Your task to perform on an android device: Go to Yahoo.com Image 0: 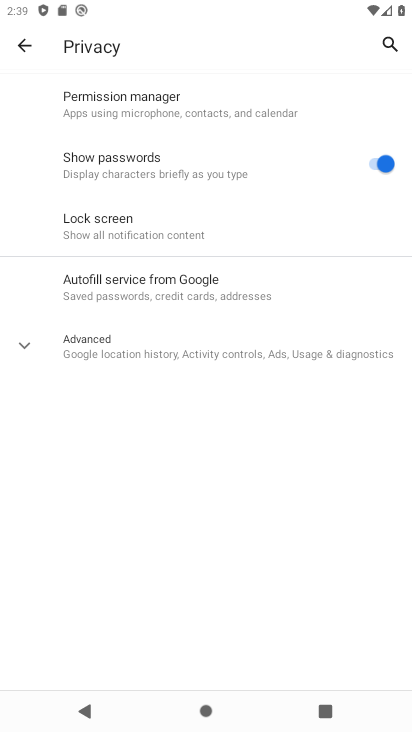
Step 0: press home button
Your task to perform on an android device: Go to Yahoo.com Image 1: 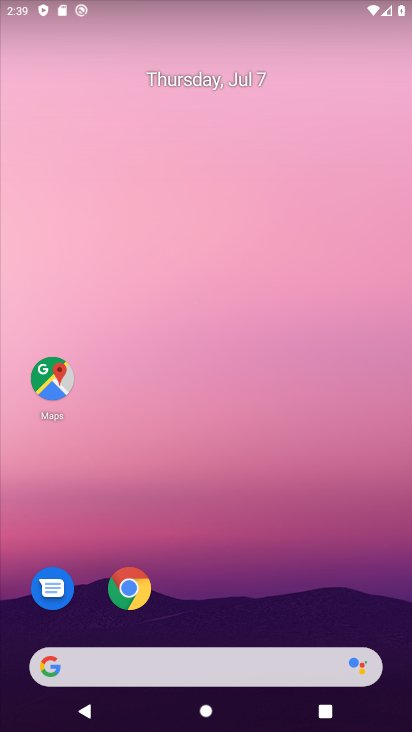
Step 1: click (131, 590)
Your task to perform on an android device: Go to Yahoo.com Image 2: 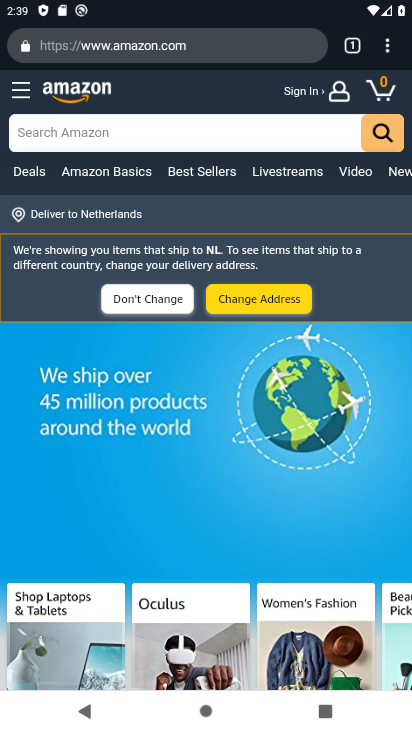
Step 2: click (211, 42)
Your task to perform on an android device: Go to Yahoo.com Image 3: 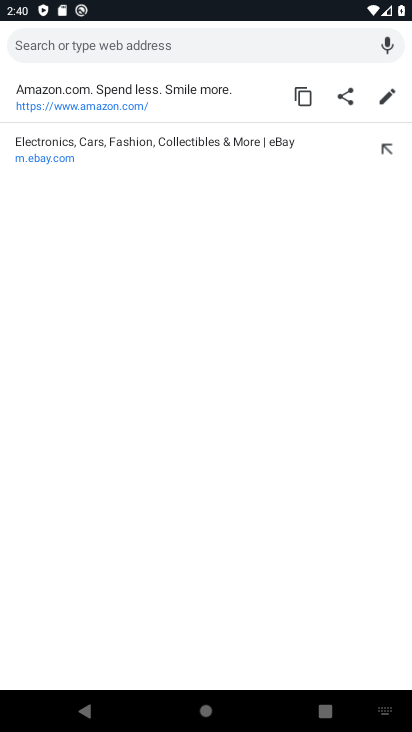
Step 3: type "Yahoo.com"
Your task to perform on an android device: Go to Yahoo.com Image 4: 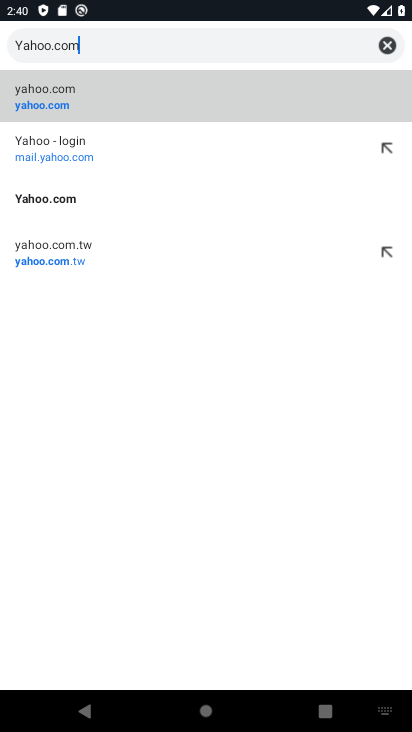
Step 4: click (54, 201)
Your task to perform on an android device: Go to Yahoo.com Image 5: 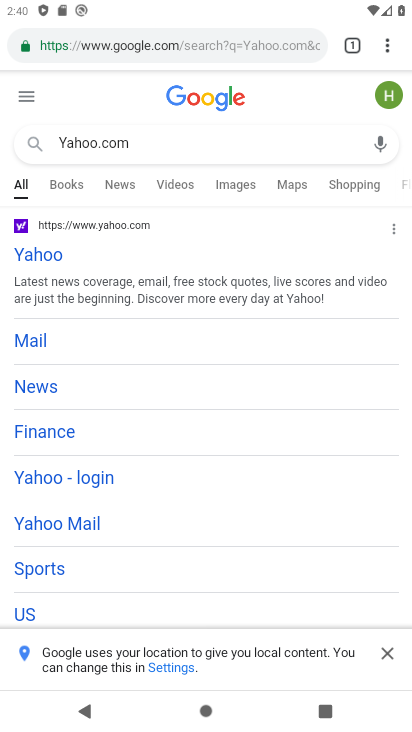
Step 5: click (33, 251)
Your task to perform on an android device: Go to Yahoo.com Image 6: 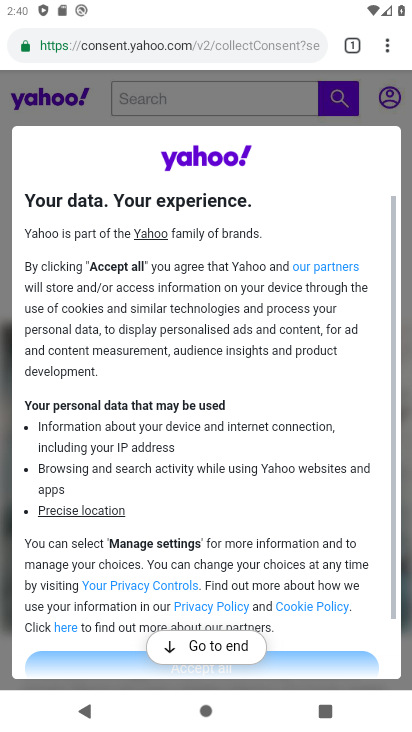
Step 6: drag from (317, 603) to (358, 420)
Your task to perform on an android device: Go to Yahoo.com Image 7: 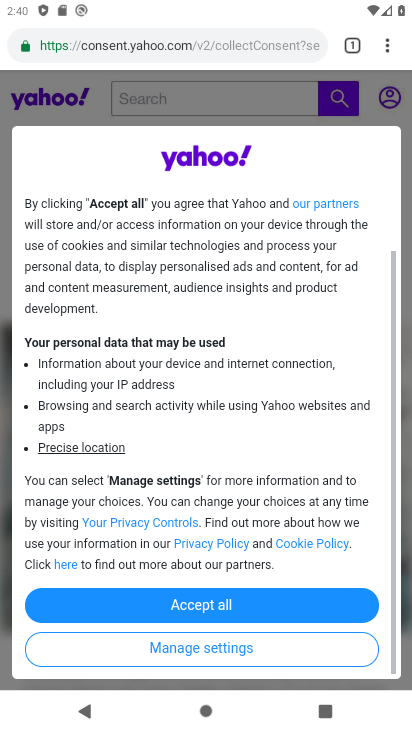
Step 7: click (218, 609)
Your task to perform on an android device: Go to Yahoo.com Image 8: 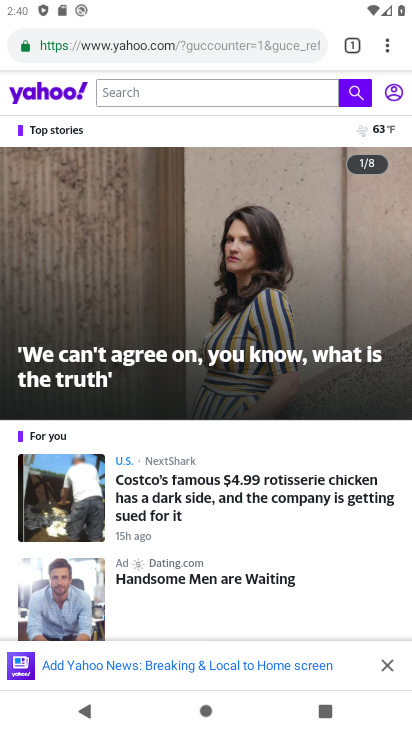
Step 8: task complete